Your task to perform on an android device: add a label to a message in the gmail app Image 0: 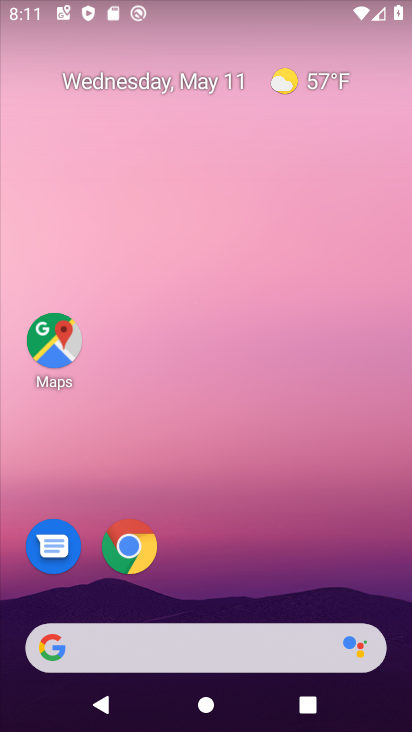
Step 0: drag from (225, 591) to (223, 215)
Your task to perform on an android device: add a label to a message in the gmail app Image 1: 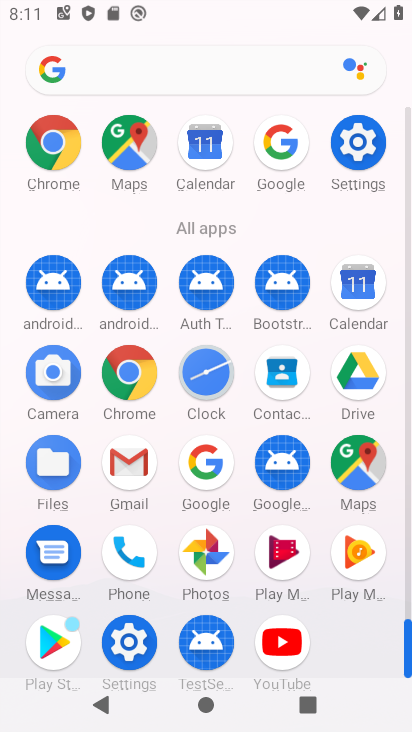
Step 1: click (133, 463)
Your task to perform on an android device: add a label to a message in the gmail app Image 2: 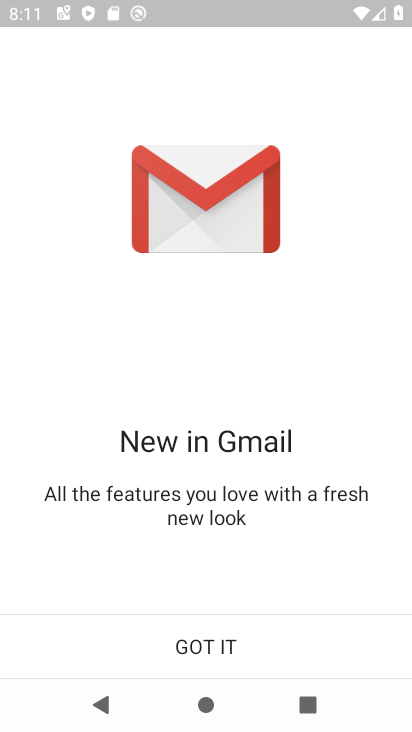
Step 2: click (192, 643)
Your task to perform on an android device: add a label to a message in the gmail app Image 3: 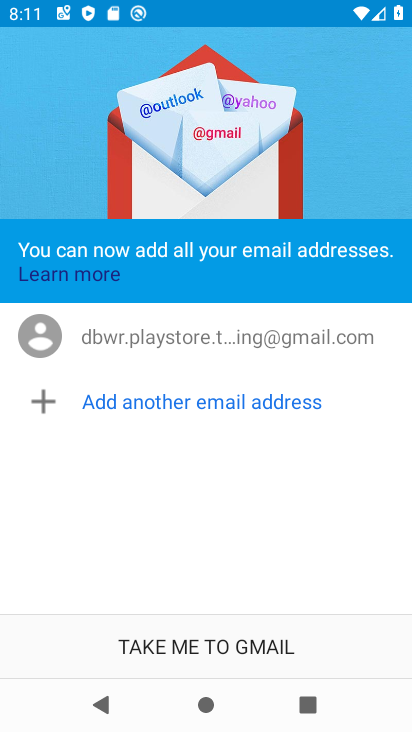
Step 3: click (187, 639)
Your task to perform on an android device: add a label to a message in the gmail app Image 4: 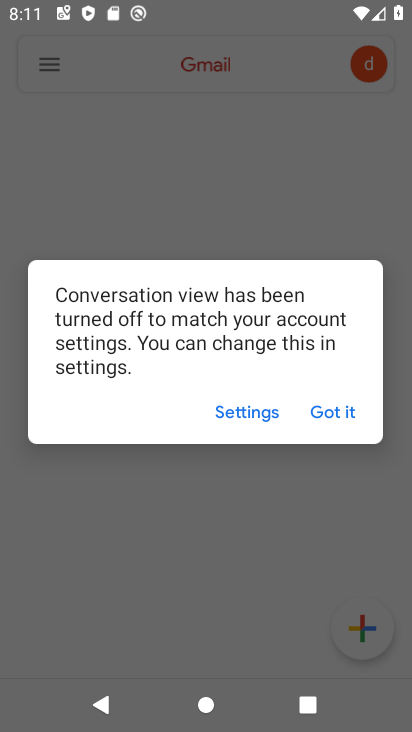
Step 4: click (327, 416)
Your task to perform on an android device: add a label to a message in the gmail app Image 5: 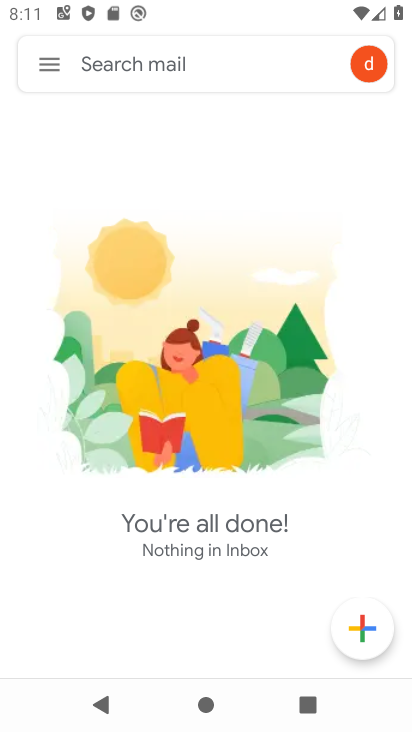
Step 5: click (49, 77)
Your task to perform on an android device: add a label to a message in the gmail app Image 6: 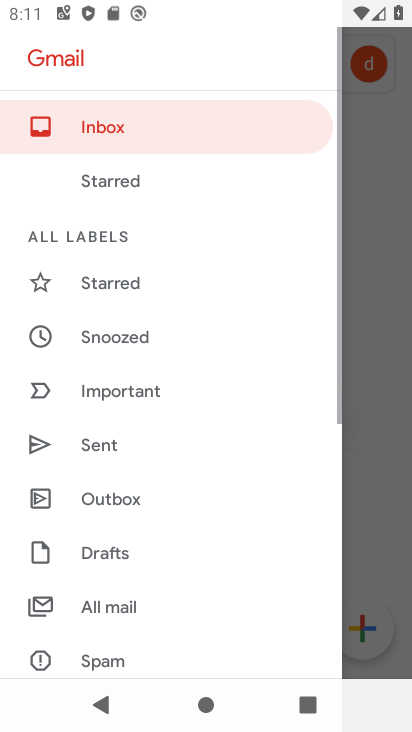
Step 6: click (105, 117)
Your task to perform on an android device: add a label to a message in the gmail app Image 7: 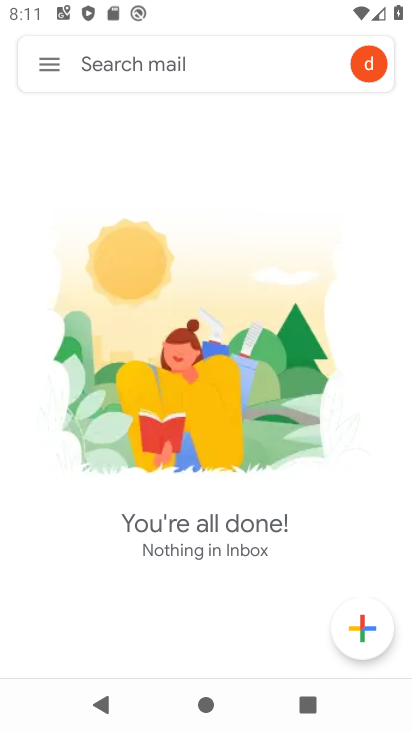
Step 7: click (56, 80)
Your task to perform on an android device: add a label to a message in the gmail app Image 8: 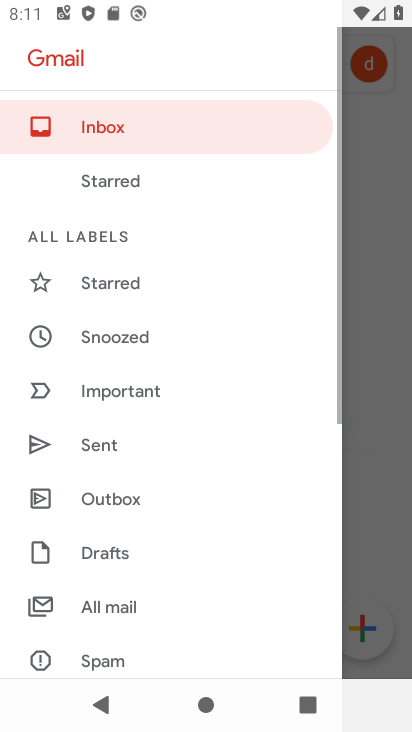
Step 8: click (132, 604)
Your task to perform on an android device: add a label to a message in the gmail app Image 9: 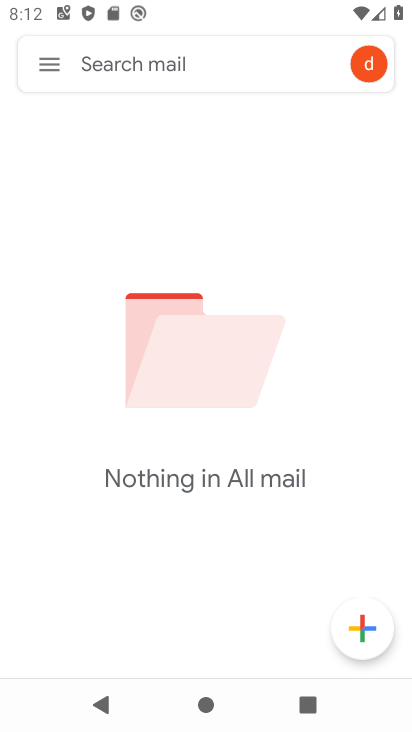
Step 9: task complete